Your task to perform on an android device: Open Chrome and go to settings Image 0: 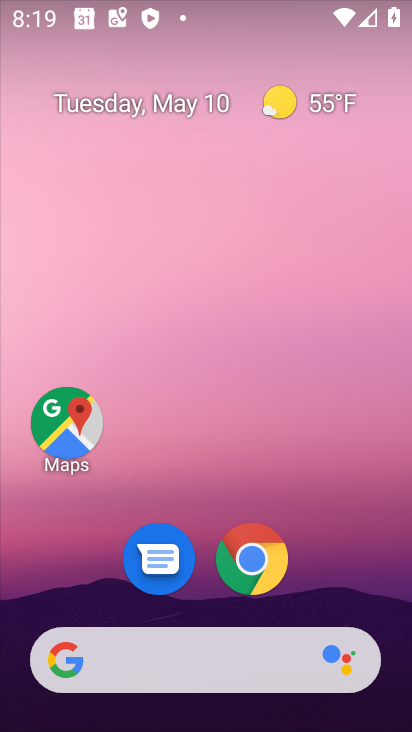
Step 0: click (248, 558)
Your task to perform on an android device: Open Chrome and go to settings Image 1: 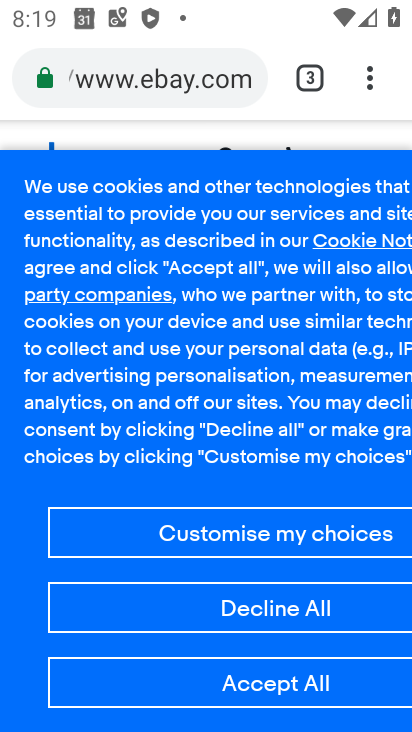
Step 1: click (369, 83)
Your task to perform on an android device: Open Chrome and go to settings Image 2: 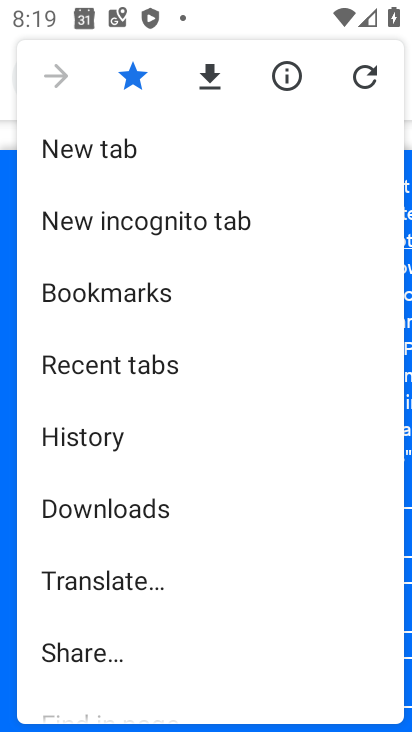
Step 2: drag from (187, 649) to (188, 332)
Your task to perform on an android device: Open Chrome and go to settings Image 3: 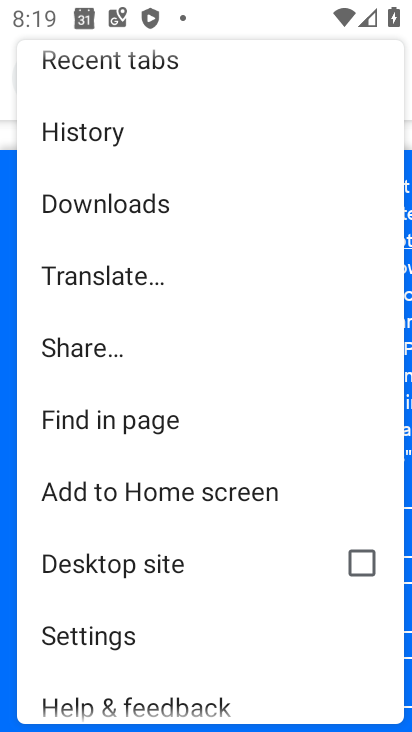
Step 3: click (103, 632)
Your task to perform on an android device: Open Chrome and go to settings Image 4: 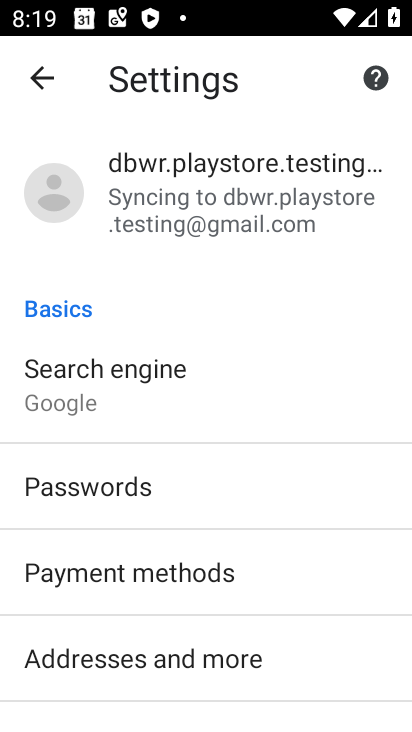
Step 4: task complete